Your task to perform on an android device: Open Reddit.com Image 0: 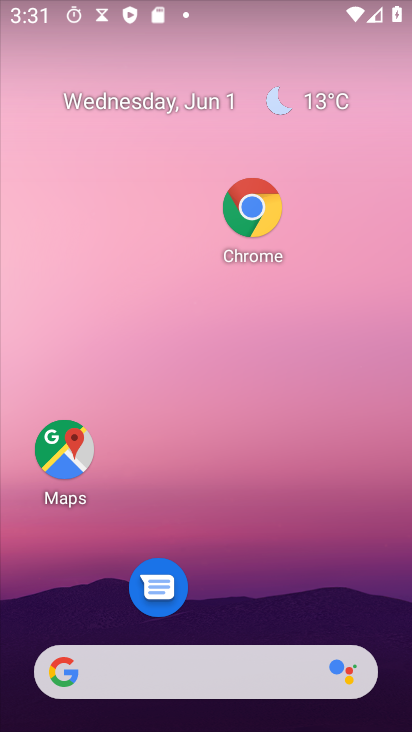
Step 0: drag from (230, 709) to (171, 41)
Your task to perform on an android device: Open Reddit.com Image 1: 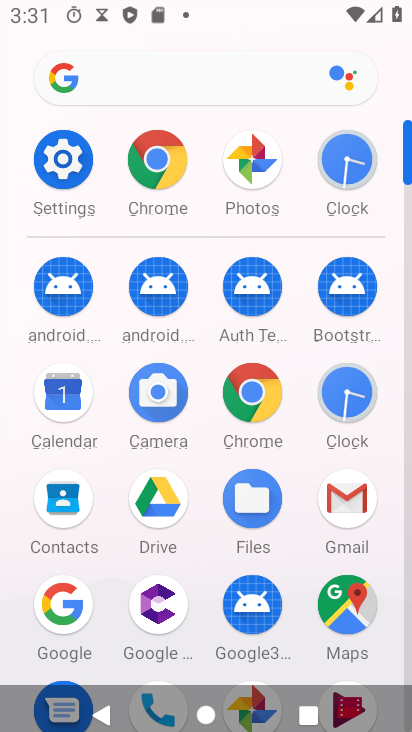
Step 1: click (161, 163)
Your task to perform on an android device: Open Reddit.com Image 2: 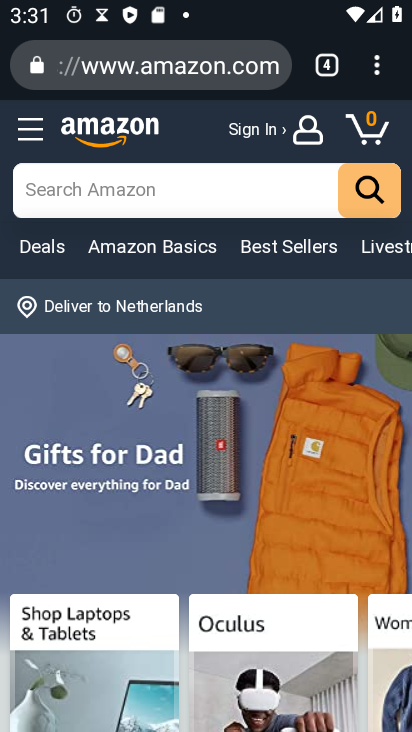
Step 2: click (379, 63)
Your task to perform on an android device: Open Reddit.com Image 3: 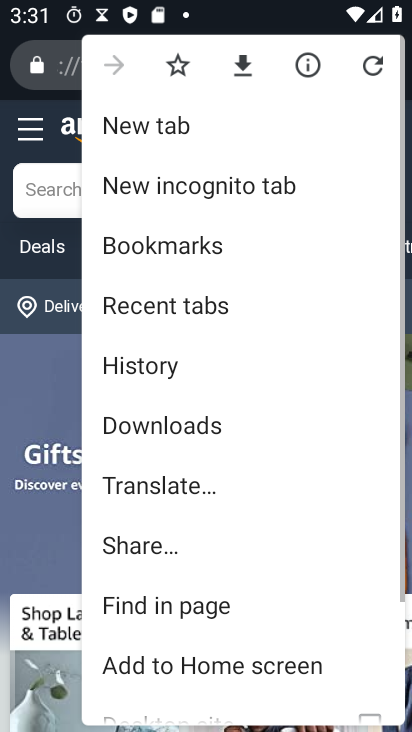
Step 3: click (155, 119)
Your task to perform on an android device: Open Reddit.com Image 4: 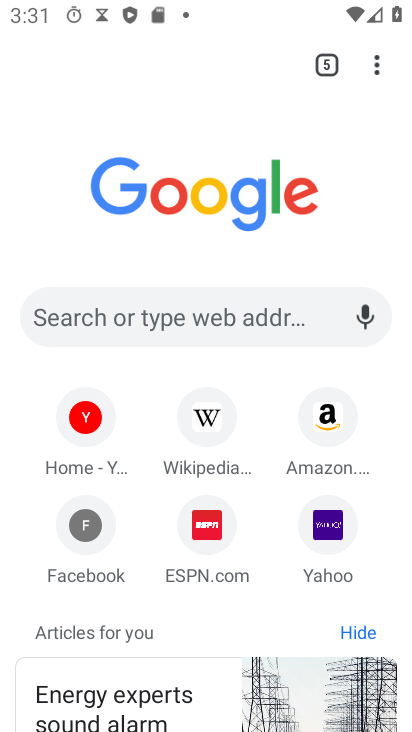
Step 4: click (81, 319)
Your task to perform on an android device: Open Reddit.com Image 5: 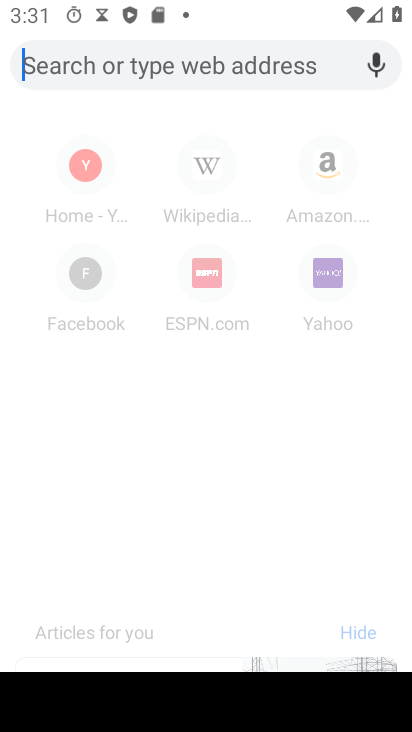
Step 5: type "reddit.com"
Your task to perform on an android device: Open Reddit.com Image 6: 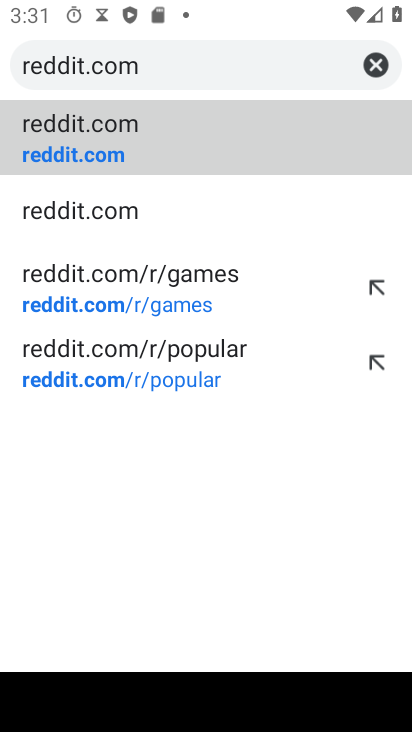
Step 6: click (44, 146)
Your task to perform on an android device: Open Reddit.com Image 7: 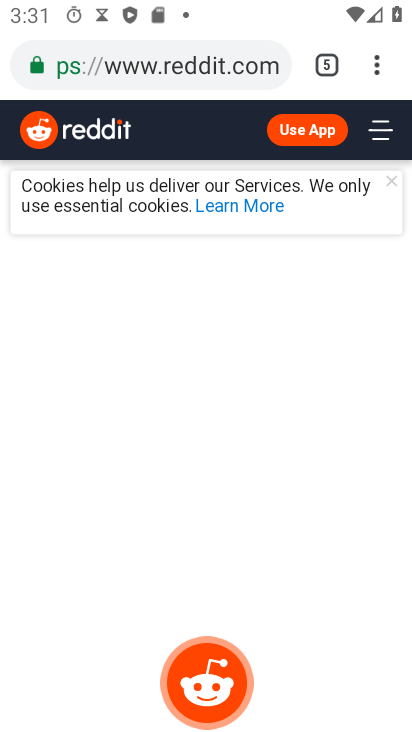
Step 7: task complete